Your task to perform on an android device: clear all cookies in the chrome app Image 0: 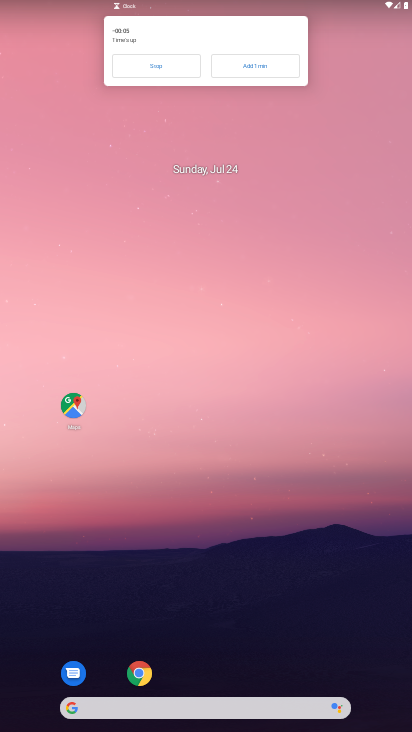
Step 0: drag from (246, 610) to (232, 34)
Your task to perform on an android device: clear all cookies in the chrome app Image 1: 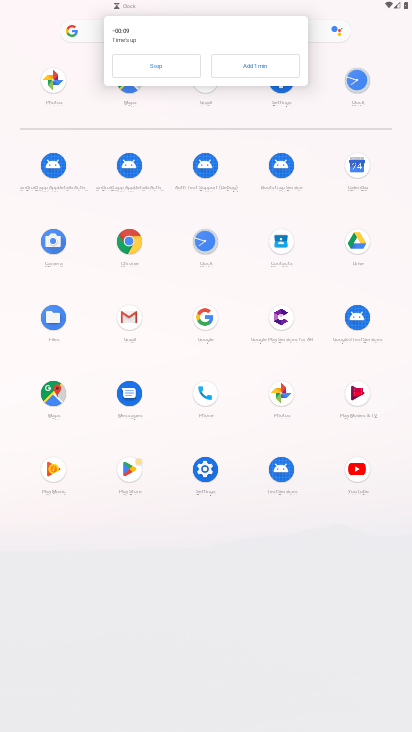
Step 1: click (138, 59)
Your task to perform on an android device: clear all cookies in the chrome app Image 2: 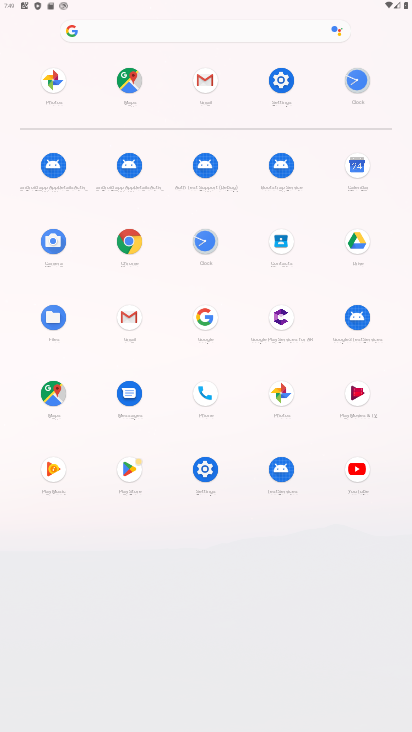
Step 2: click (122, 235)
Your task to perform on an android device: clear all cookies in the chrome app Image 3: 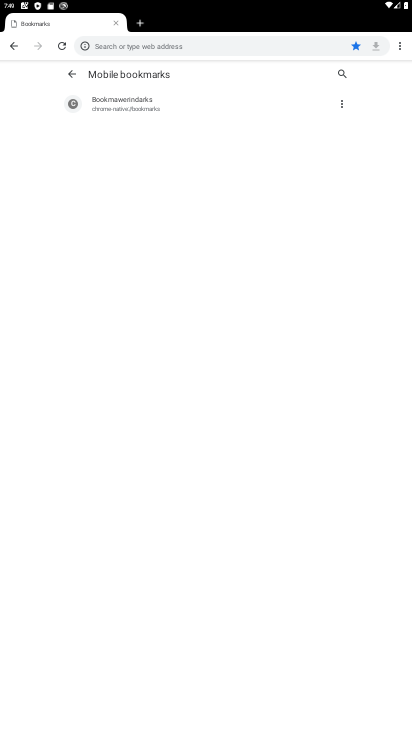
Step 3: drag from (391, 39) to (326, 212)
Your task to perform on an android device: clear all cookies in the chrome app Image 4: 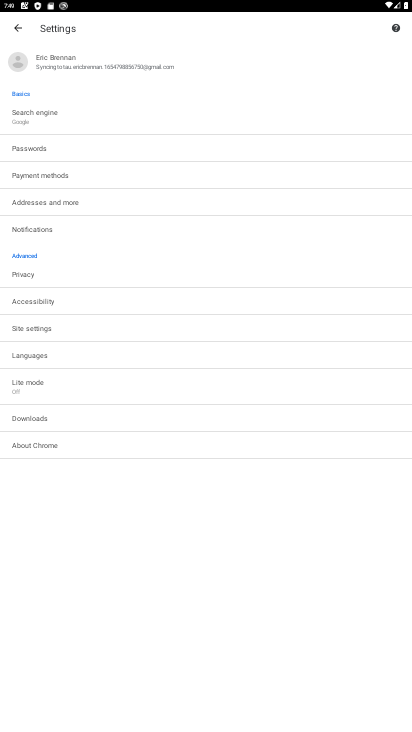
Step 4: click (17, 28)
Your task to perform on an android device: clear all cookies in the chrome app Image 5: 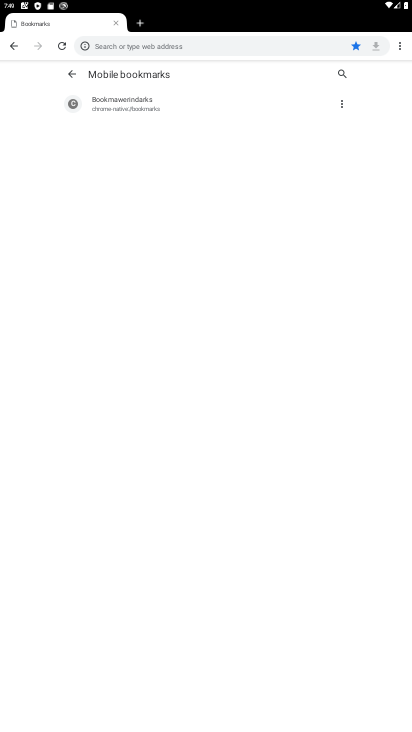
Step 5: drag from (397, 45) to (300, 138)
Your task to perform on an android device: clear all cookies in the chrome app Image 6: 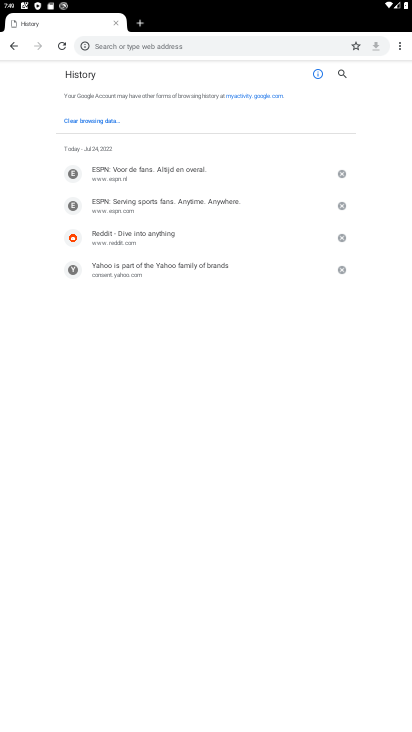
Step 6: click (76, 132)
Your task to perform on an android device: clear all cookies in the chrome app Image 7: 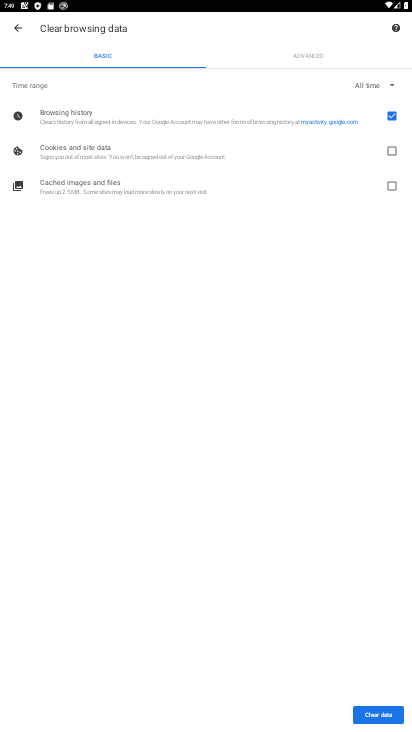
Step 7: click (389, 148)
Your task to perform on an android device: clear all cookies in the chrome app Image 8: 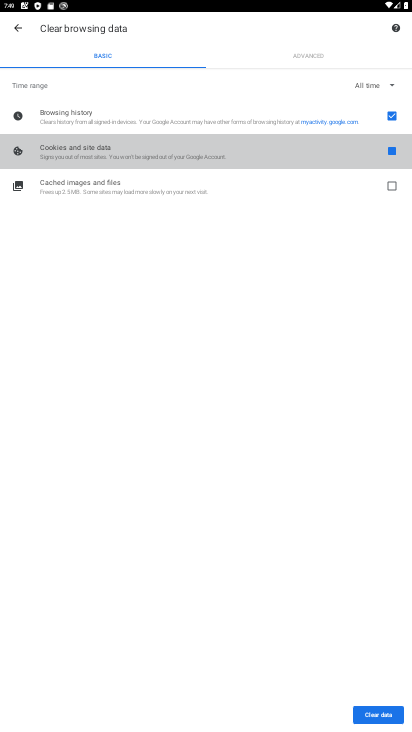
Step 8: click (392, 119)
Your task to perform on an android device: clear all cookies in the chrome app Image 9: 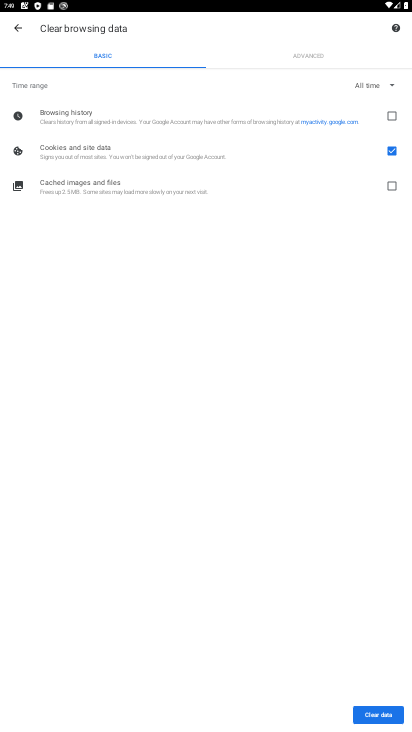
Step 9: click (378, 711)
Your task to perform on an android device: clear all cookies in the chrome app Image 10: 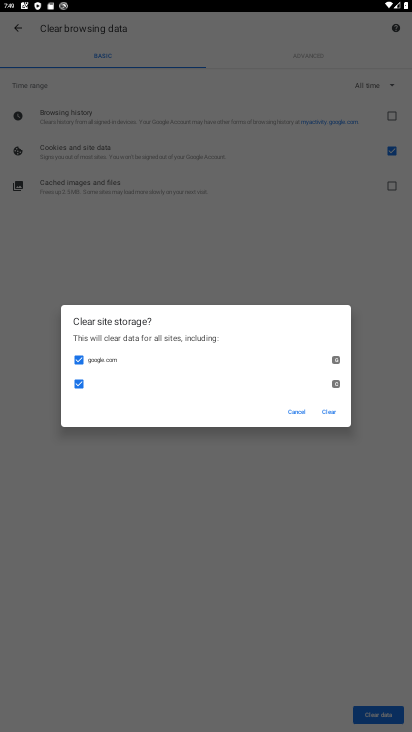
Step 10: click (312, 415)
Your task to perform on an android device: clear all cookies in the chrome app Image 11: 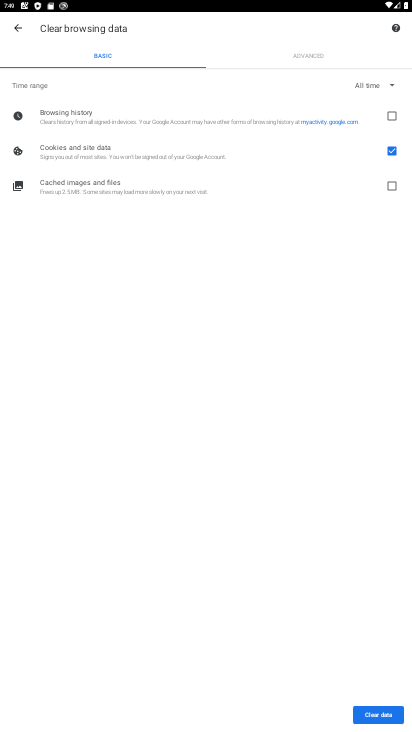
Step 11: task complete